Your task to perform on an android device: Is it going to rain tomorrow? Image 0: 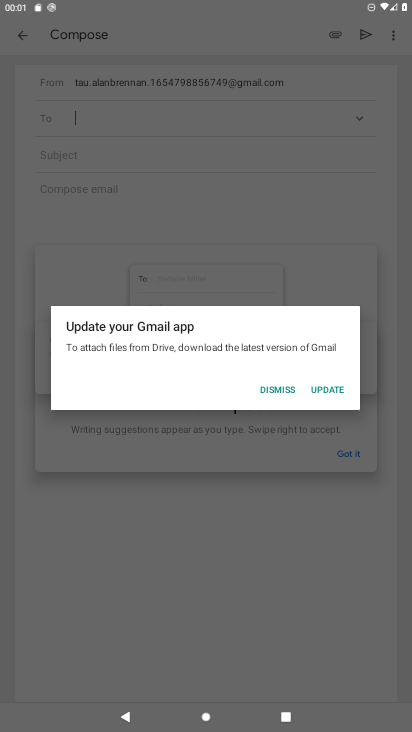
Step 0: press home button
Your task to perform on an android device: Is it going to rain tomorrow? Image 1: 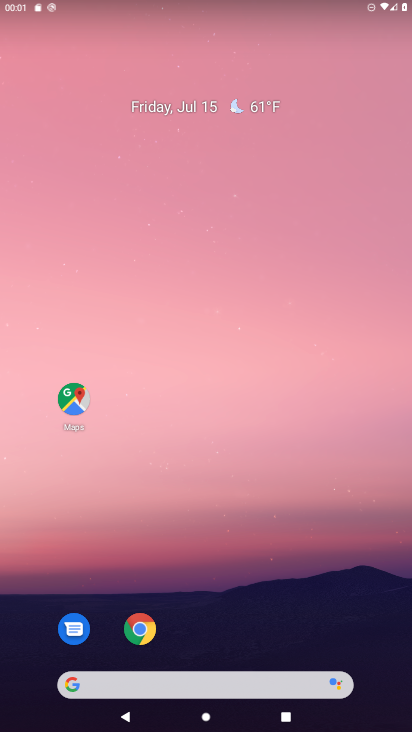
Step 1: click (139, 693)
Your task to perform on an android device: Is it going to rain tomorrow? Image 2: 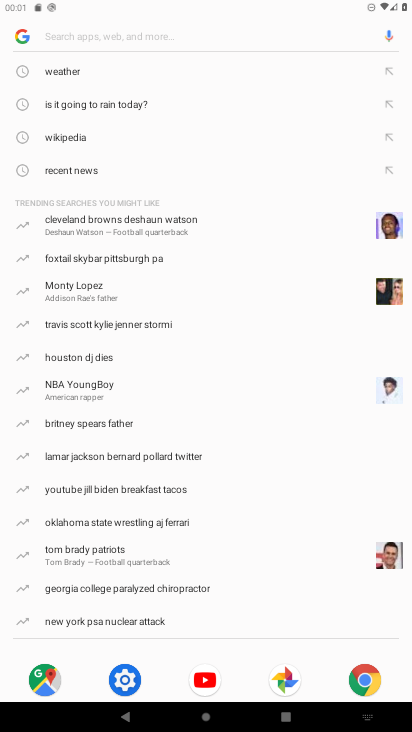
Step 2: click (66, 73)
Your task to perform on an android device: Is it going to rain tomorrow? Image 3: 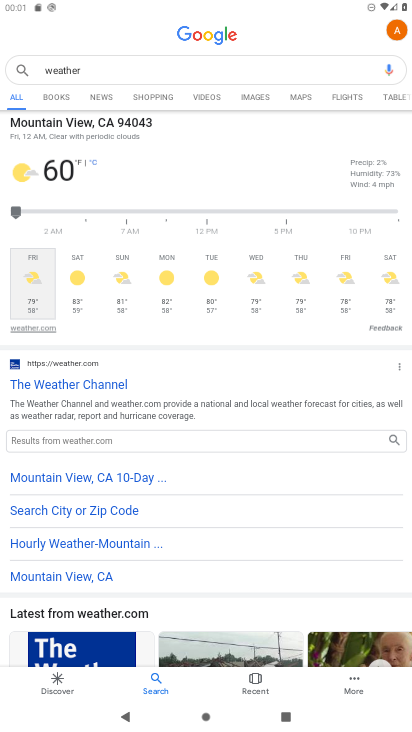
Step 3: task complete